Your task to perform on an android device: Go to internet settings Image 0: 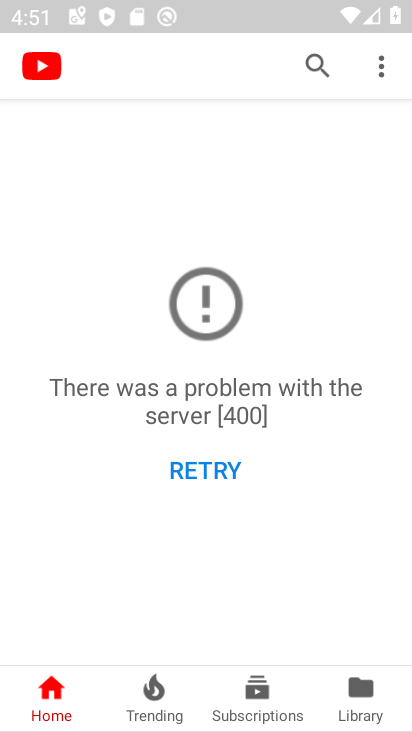
Step 0: press home button
Your task to perform on an android device: Go to internet settings Image 1: 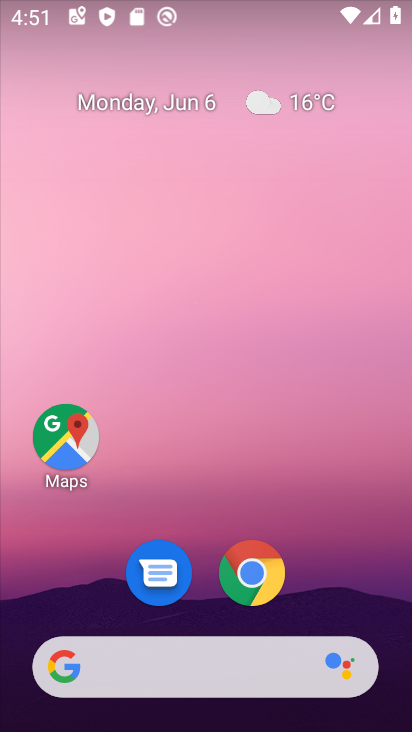
Step 1: drag from (343, 587) to (268, 122)
Your task to perform on an android device: Go to internet settings Image 2: 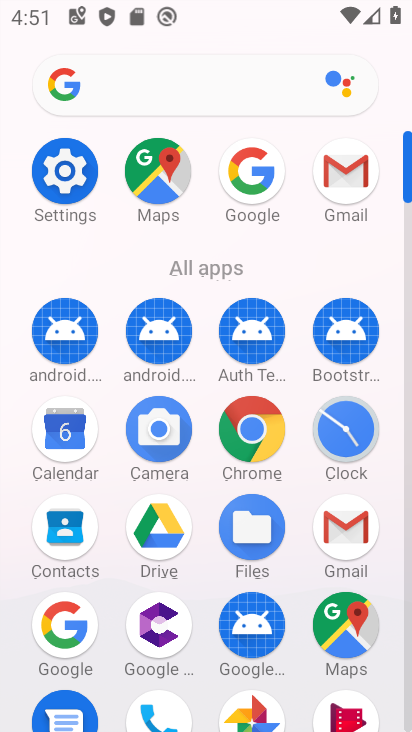
Step 2: click (67, 169)
Your task to perform on an android device: Go to internet settings Image 3: 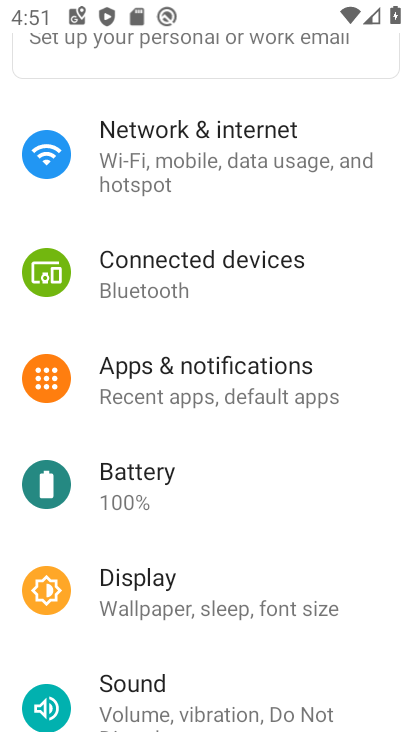
Step 3: click (220, 143)
Your task to perform on an android device: Go to internet settings Image 4: 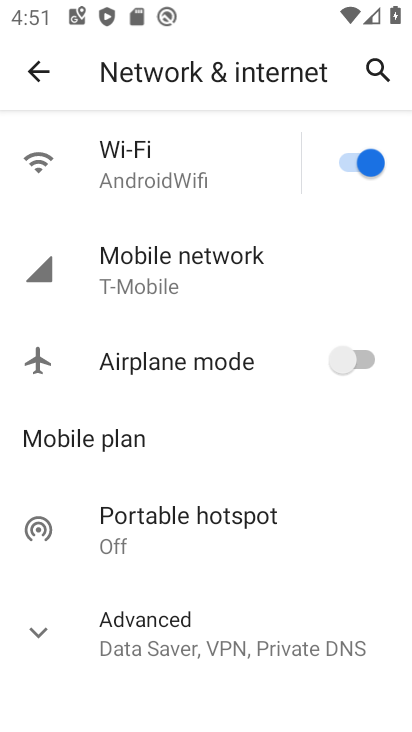
Step 4: click (185, 166)
Your task to perform on an android device: Go to internet settings Image 5: 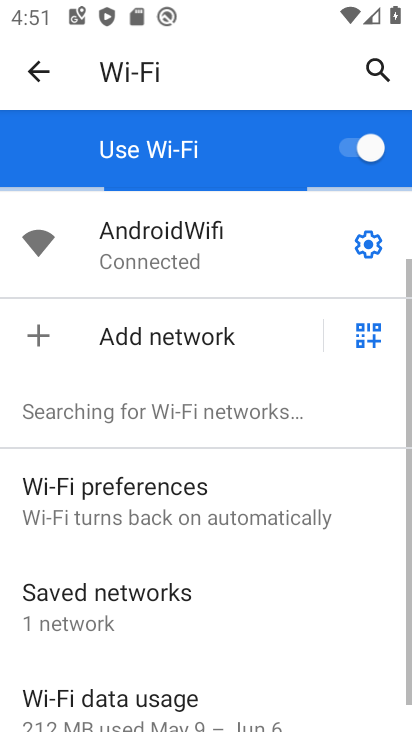
Step 5: task complete